Your task to perform on an android device: Open Wikipedia Image 0: 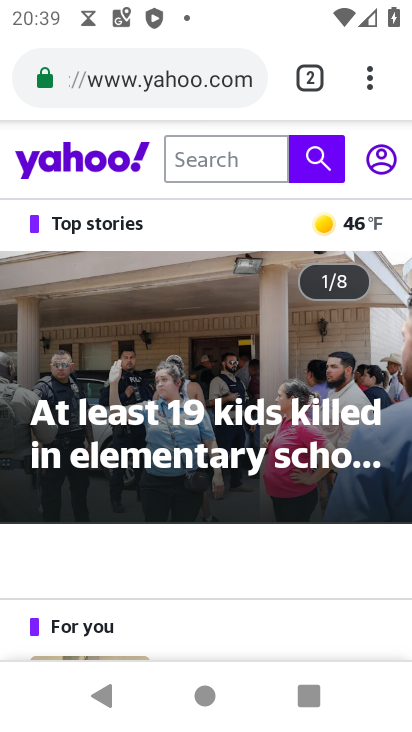
Step 0: press home button
Your task to perform on an android device: Open Wikipedia Image 1: 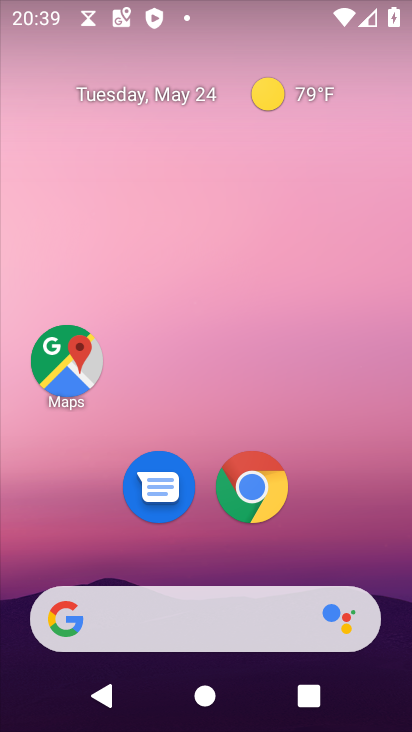
Step 1: click (256, 488)
Your task to perform on an android device: Open Wikipedia Image 2: 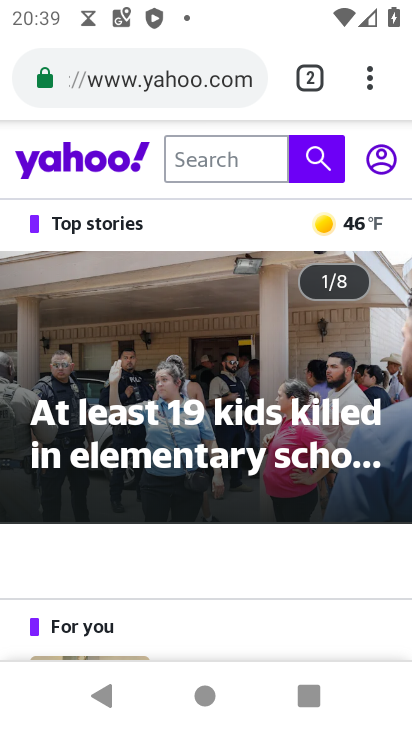
Step 2: click (318, 70)
Your task to perform on an android device: Open Wikipedia Image 3: 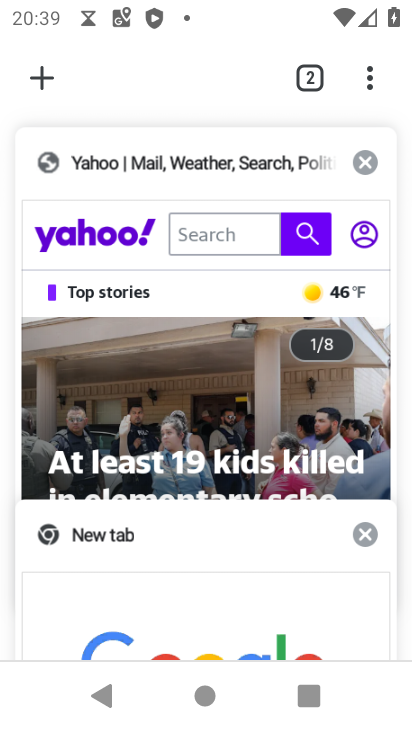
Step 3: click (362, 161)
Your task to perform on an android device: Open Wikipedia Image 4: 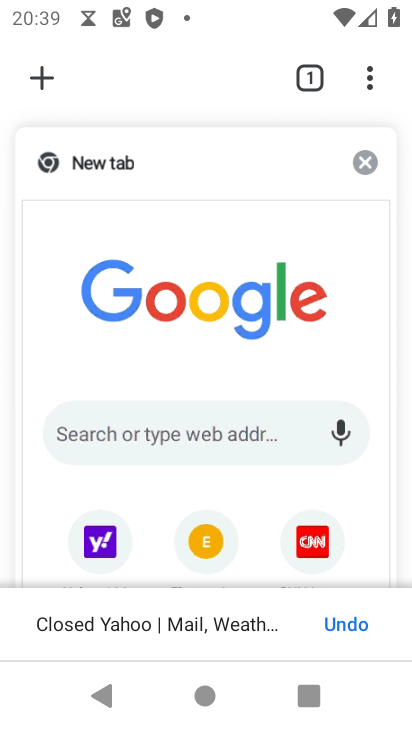
Step 4: click (140, 289)
Your task to perform on an android device: Open Wikipedia Image 5: 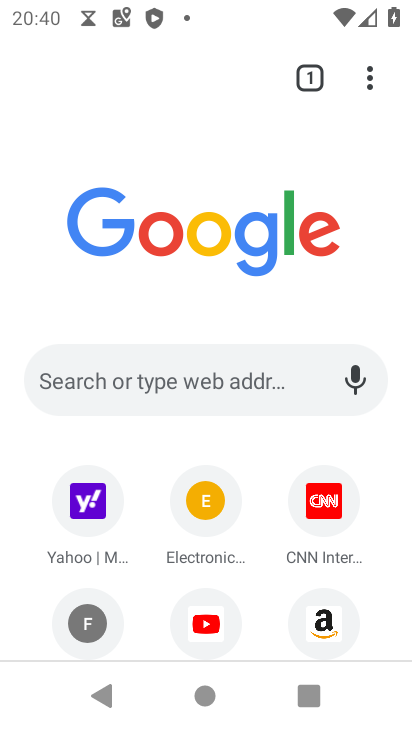
Step 5: drag from (6, 544) to (143, 186)
Your task to perform on an android device: Open Wikipedia Image 6: 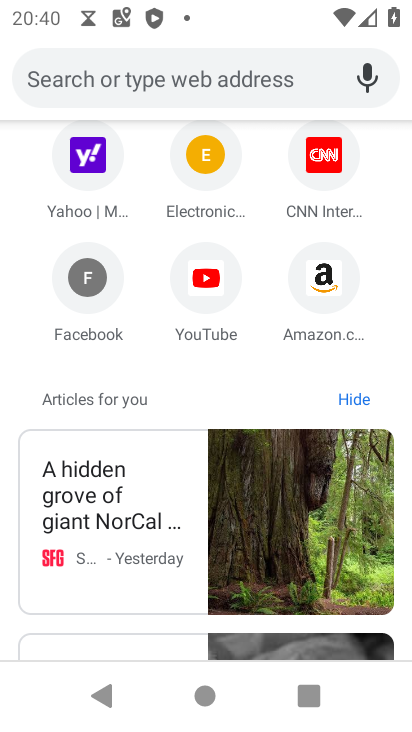
Step 6: click (186, 84)
Your task to perform on an android device: Open Wikipedia Image 7: 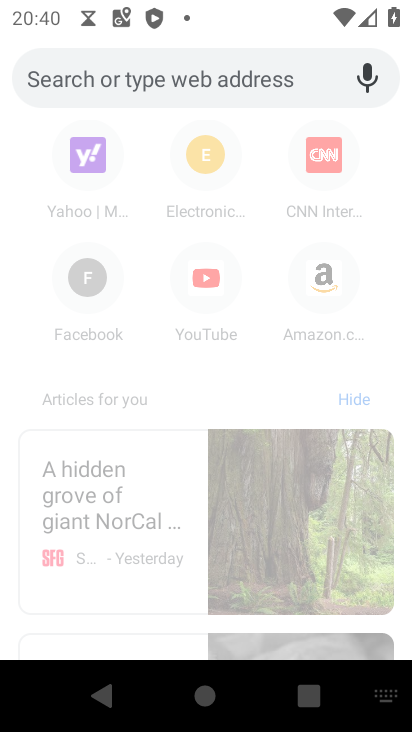
Step 7: type " Wikipedia"
Your task to perform on an android device: Open Wikipedia Image 8: 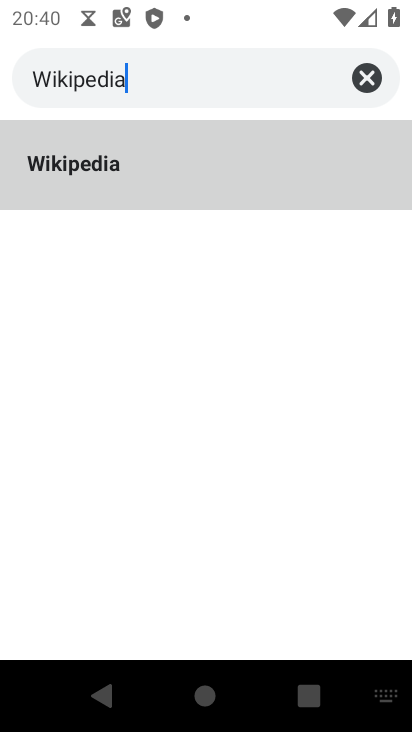
Step 8: type ""
Your task to perform on an android device: Open Wikipedia Image 9: 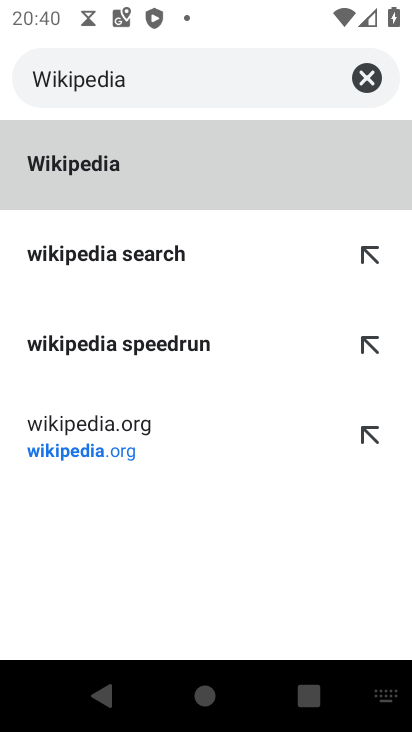
Step 9: click (212, 155)
Your task to perform on an android device: Open Wikipedia Image 10: 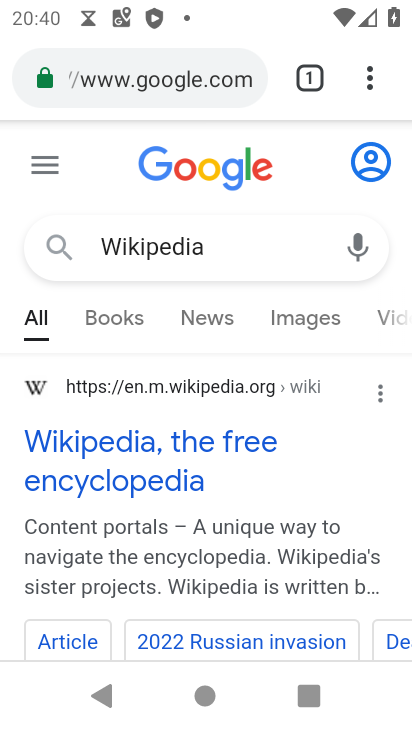
Step 10: click (138, 476)
Your task to perform on an android device: Open Wikipedia Image 11: 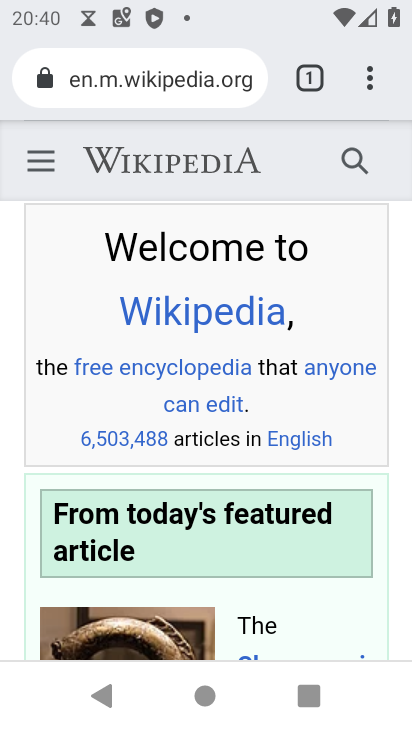
Step 11: task complete